Your task to perform on an android device: See recent photos Image 0: 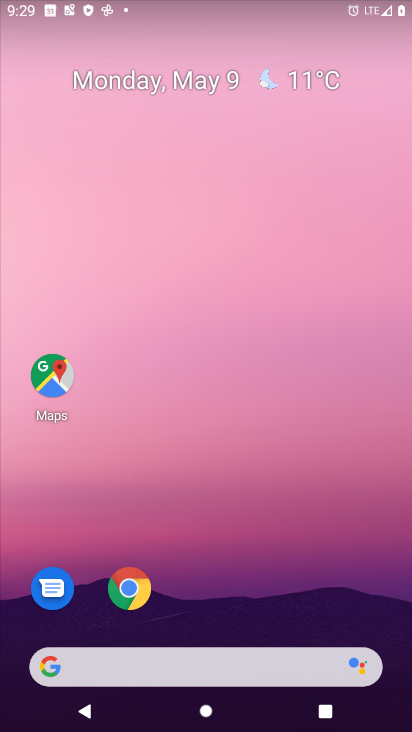
Step 0: drag from (339, 595) to (299, 76)
Your task to perform on an android device: See recent photos Image 1: 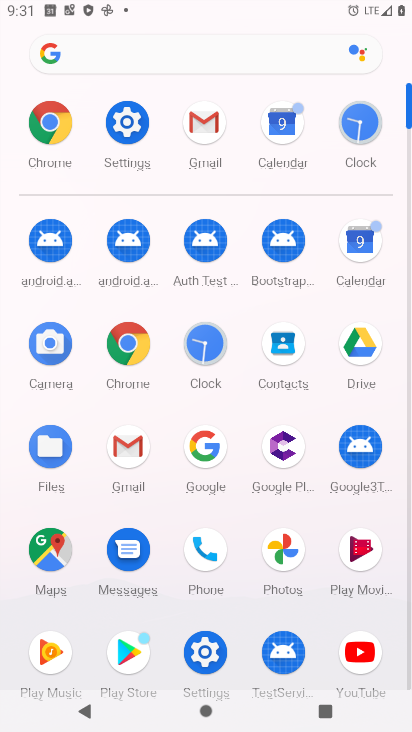
Step 1: click (268, 551)
Your task to perform on an android device: See recent photos Image 2: 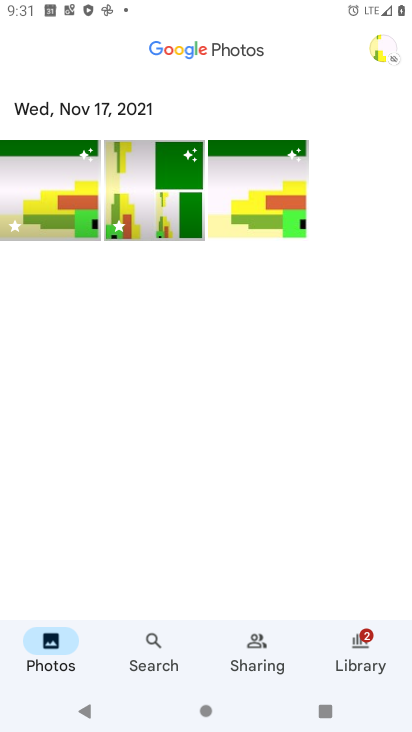
Step 2: click (50, 172)
Your task to perform on an android device: See recent photos Image 3: 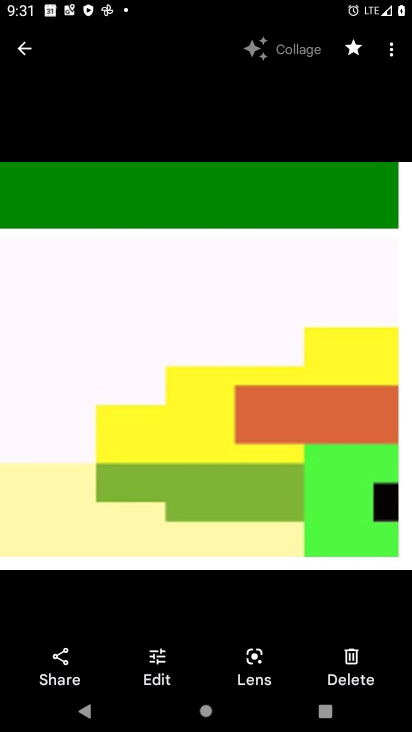
Step 3: task complete